Your task to perform on an android device: turn off javascript in the chrome app Image 0: 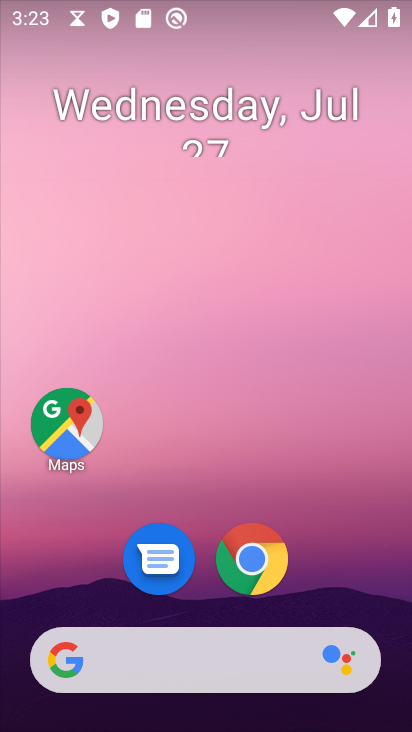
Step 0: click (243, 558)
Your task to perform on an android device: turn off javascript in the chrome app Image 1: 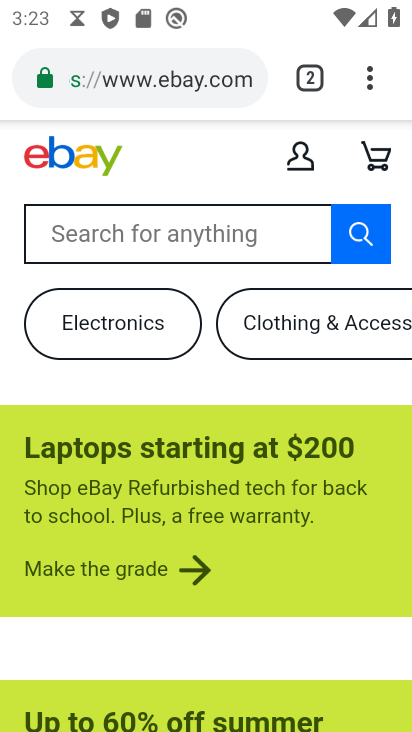
Step 1: drag from (359, 75) to (118, 605)
Your task to perform on an android device: turn off javascript in the chrome app Image 2: 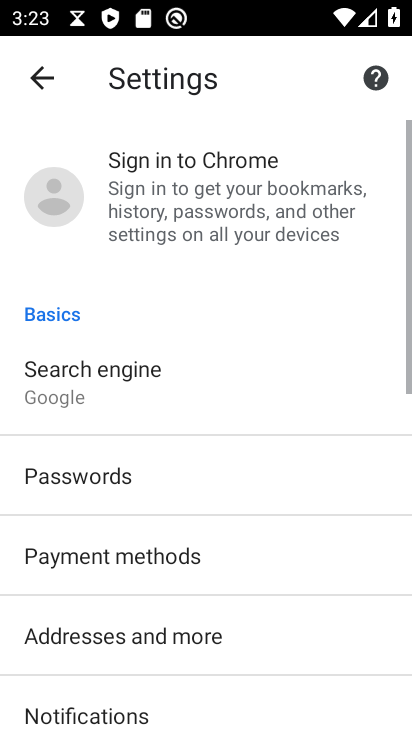
Step 2: drag from (156, 648) to (294, 63)
Your task to perform on an android device: turn off javascript in the chrome app Image 3: 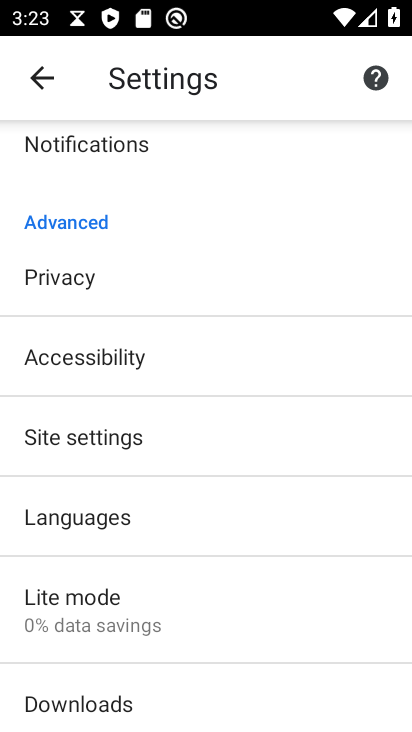
Step 3: click (150, 437)
Your task to perform on an android device: turn off javascript in the chrome app Image 4: 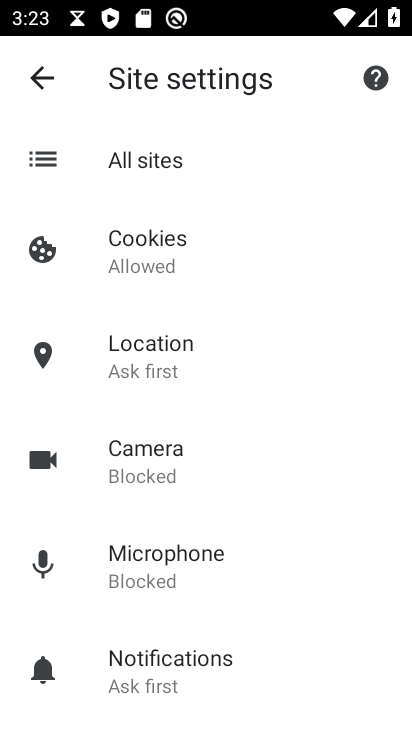
Step 4: drag from (210, 658) to (239, 68)
Your task to perform on an android device: turn off javascript in the chrome app Image 5: 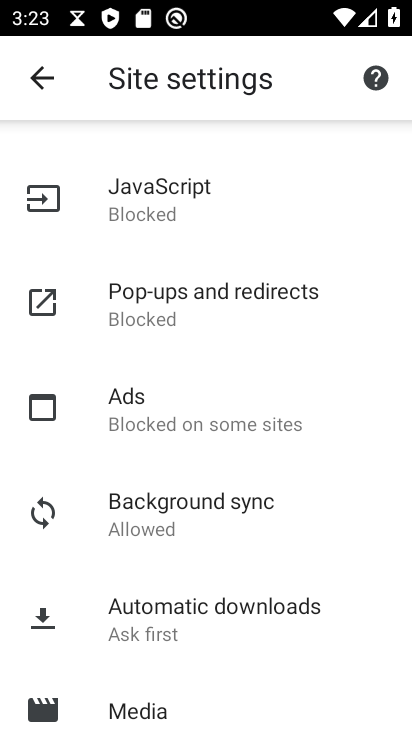
Step 5: click (220, 203)
Your task to perform on an android device: turn off javascript in the chrome app Image 6: 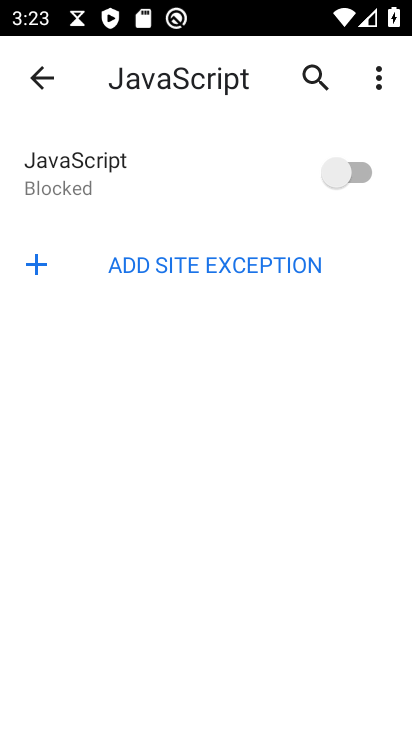
Step 6: task complete